Your task to perform on an android device: see sites visited before in the chrome app Image 0: 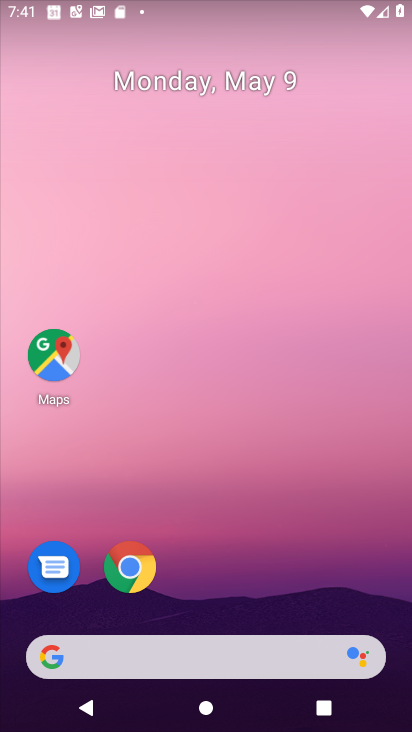
Step 0: drag from (182, 602) to (285, 60)
Your task to perform on an android device: see sites visited before in the chrome app Image 1: 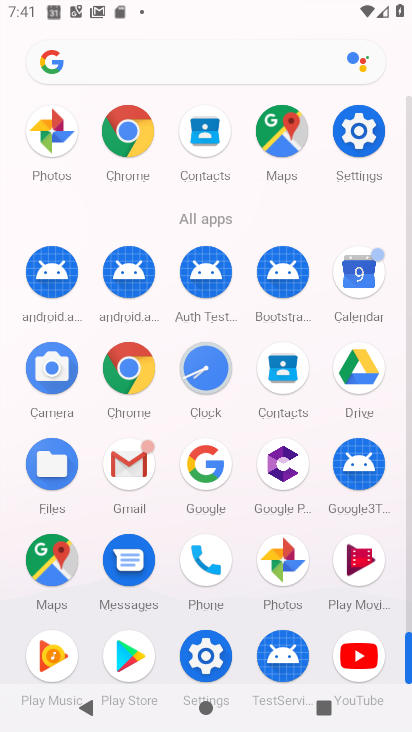
Step 1: click (131, 372)
Your task to perform on an android device: see sites visited before in the chrome app Image 2: 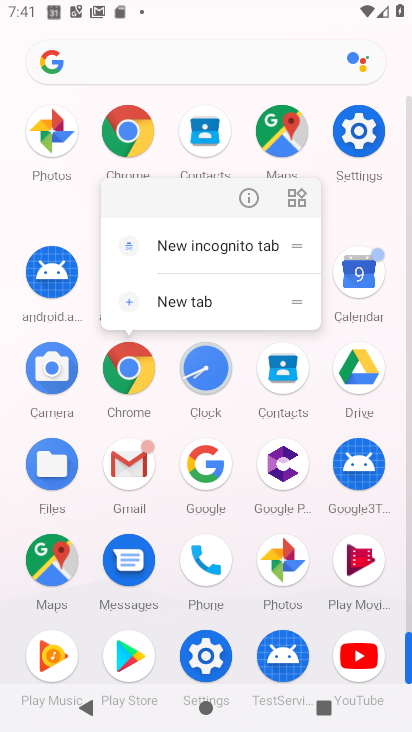
Step 2: click (255, 194)
Your task to perform on an android device: see sites visited before in the chrome app Image 3: 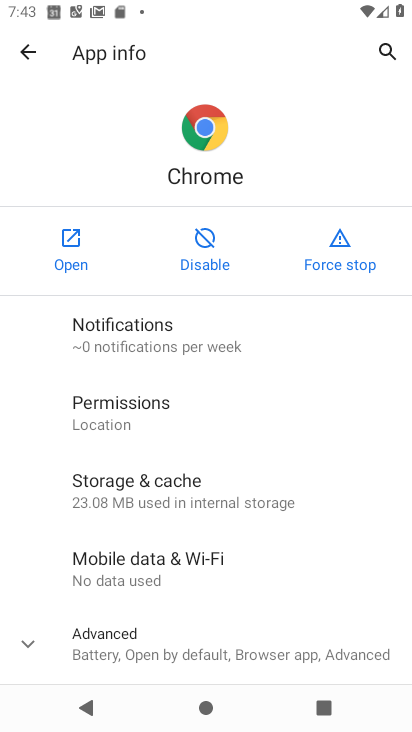
Step 3: click (62, 241)
Your task to perform on an android device: see sites visited before in the chrome app Image 4: 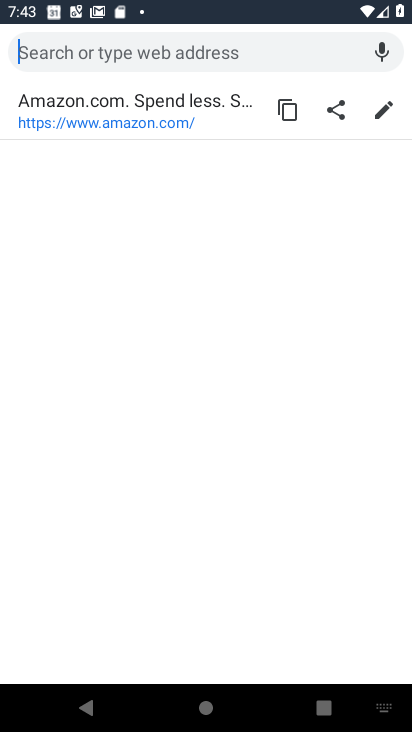
Step 4: press back button
Your task to perform on an android device: see sites visited before in the chrome app Image 5: 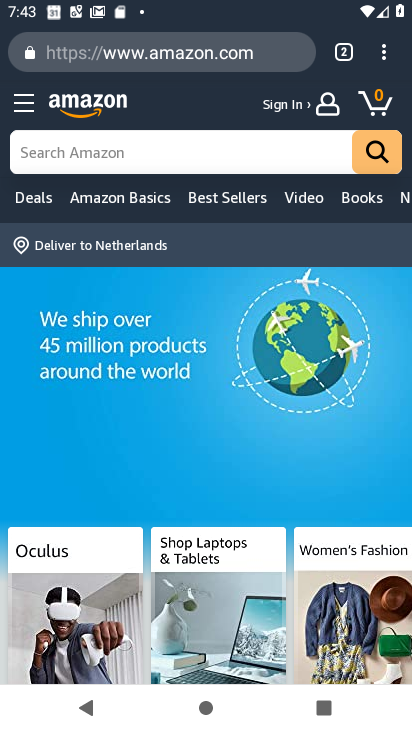
Step 5: drag from (224, 537) to (344, 336)
Your task to perform on an android device: see sites visited before in the chrome app Image 6: 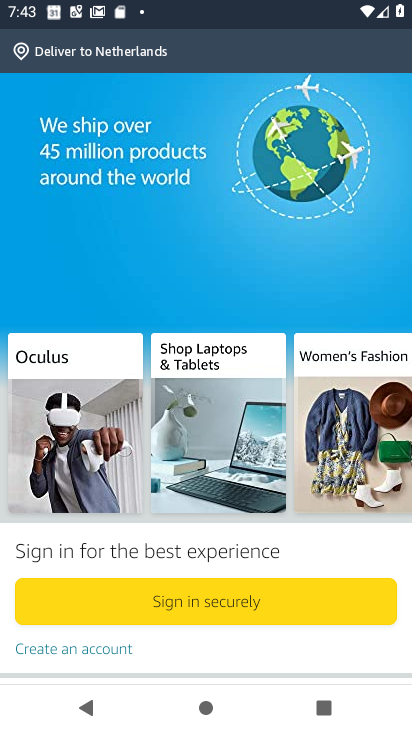
Step 6: drag from (370, 91) to (340, 480)
Your task to perform on an android device: see sites visited before in the chrome app Image 7: 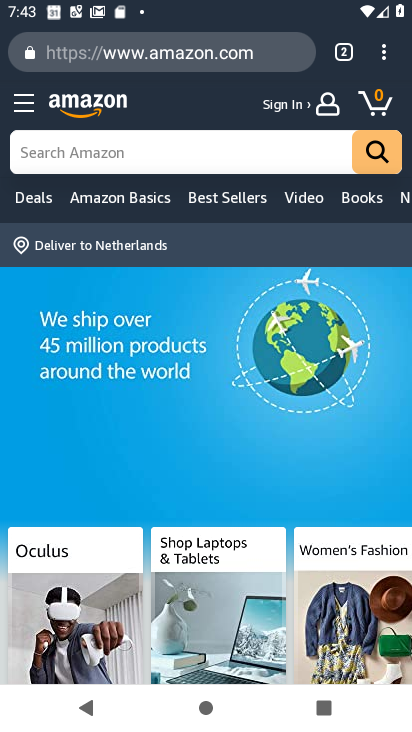
Step 7: drag from (380, 53) to (235, 223)
Your task to perform on an android device: see sites visited before in the chrome app Image 8: 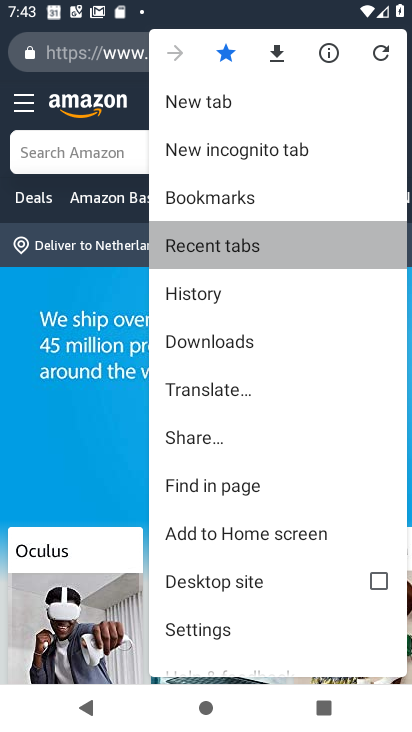
Step 8: click (238, 217)
Your task to perform on an android device: see sites visited before in the chrome app Image 9: 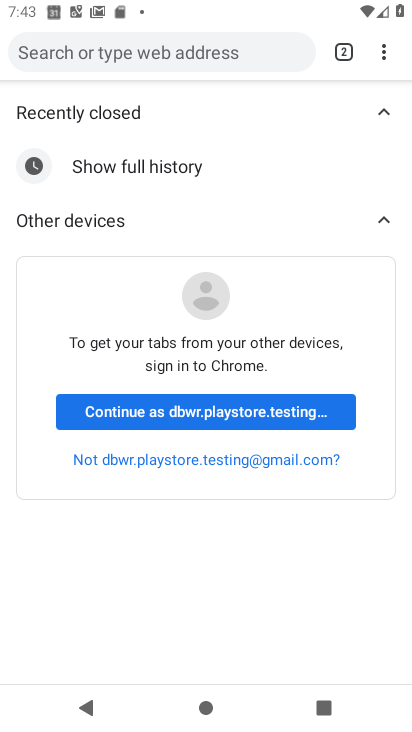
Step 9: click (251, 196)
Your task to perform on an android device: see sites visited before in the chrome app Image 10: 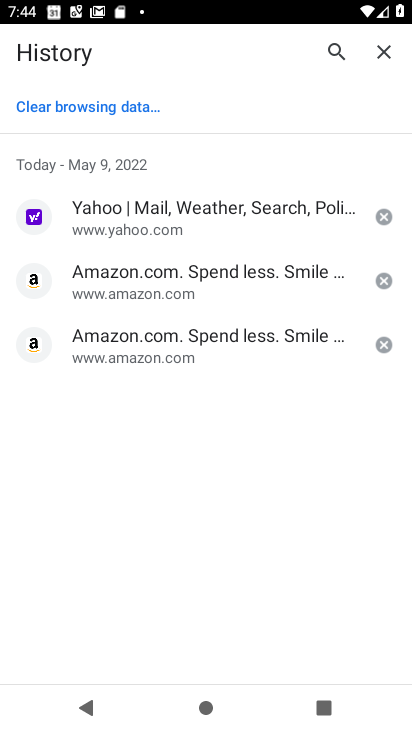
Step 10: drag from (220, 476) to (249, 202)
Your task to perform on an android device: see sites visited before in the chrome app Image 11: 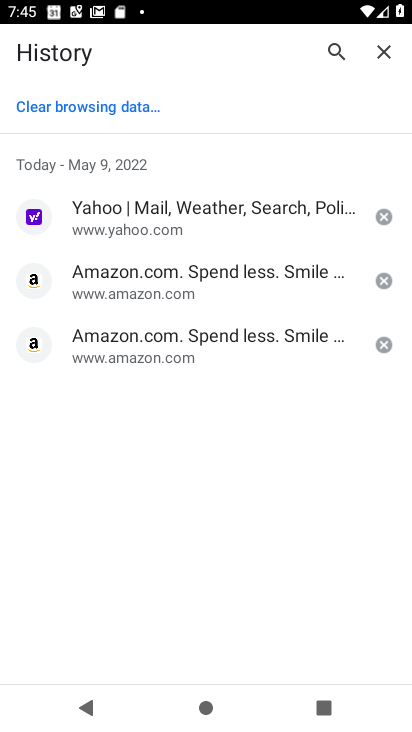
Step 11: click (328, 159)
Your task to perform on an android device: see sites visited before in the chrome app Image 12: 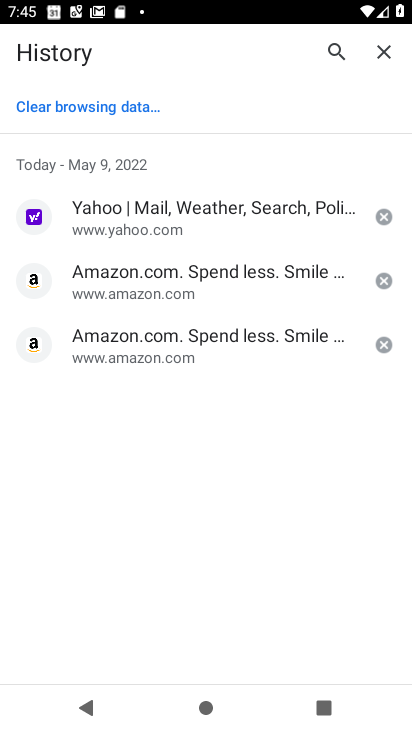
Step 12: task complete